Your task to perform on an android device: toggle location history Image 0: 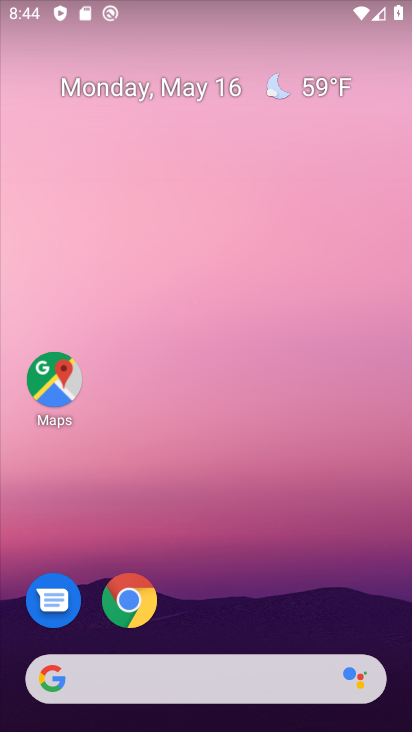
Step 0: drag from (175, 643) to (196, 183)
Your task to perform on an android device: toggle location history Image 1: 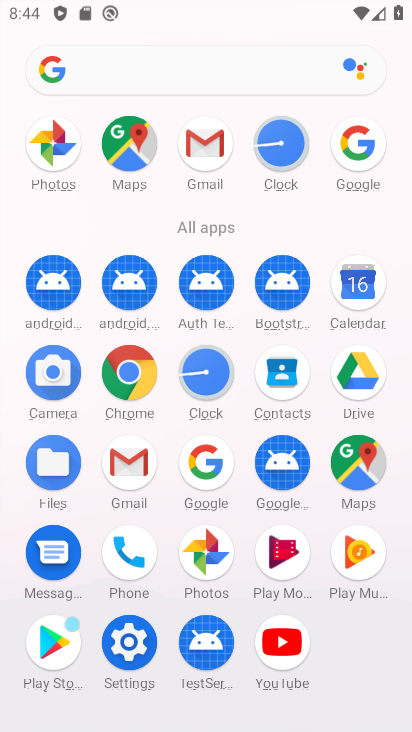
Step 1: click (142, 642)
Your task to perform on an android device: toggle location history Image 2: 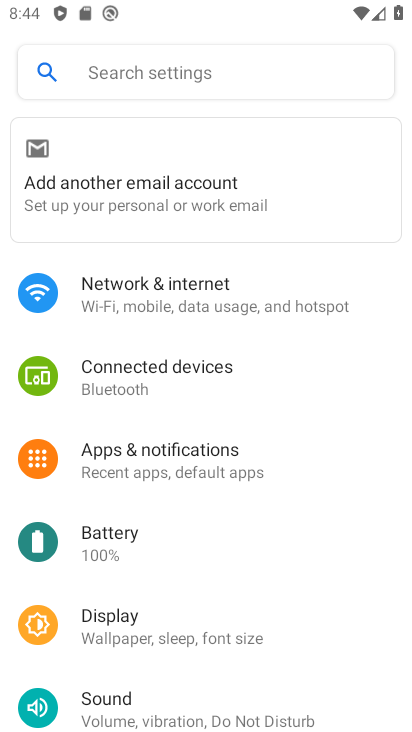
Step 2: drag from (142, 693) to (187, 276)
Your task to perform on an android device: toggle location history Image 3: 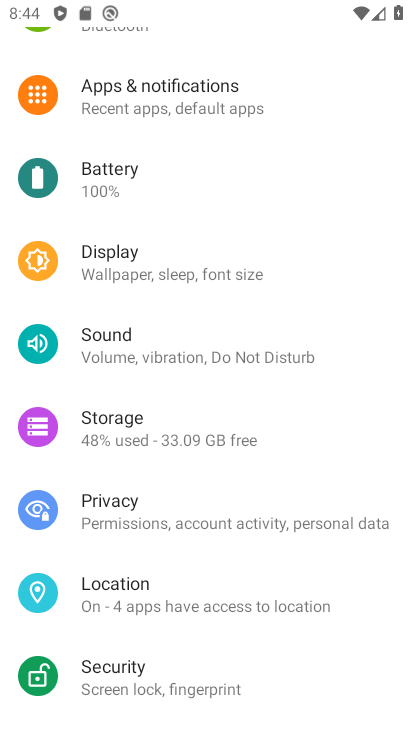
Step 3: click (124, 593)
Your task to perform on an android device: toggle location history Image 4: 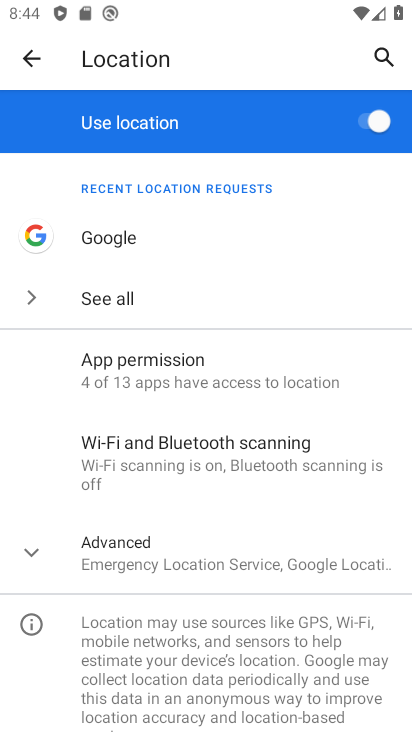
Step 4: click (107, 555)
Your task to perform on an android device: toggle location history Image 5: 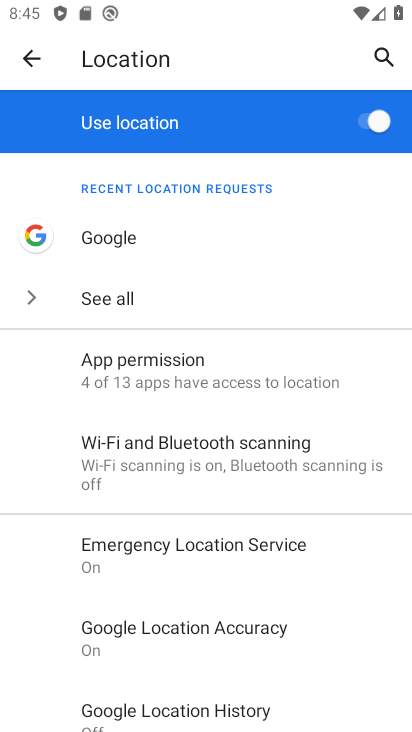
Step 5: click (200, 713)
Your task to perform on an android device: toggle location history Image 6: 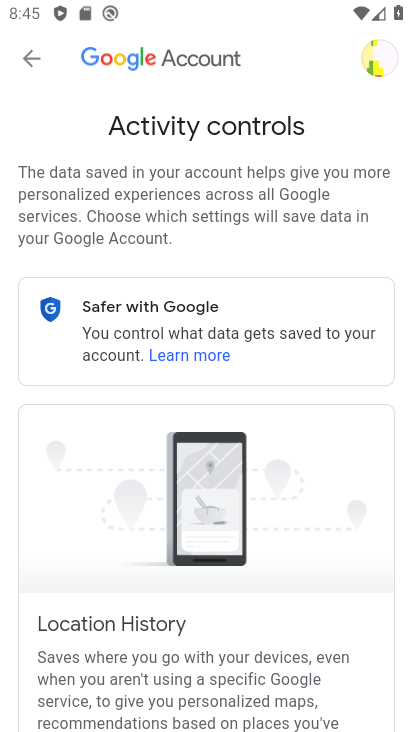
Step 6: drag from (321, 671) to (310, 276)
Your task to perform on an android device: toggle location history Image 7: 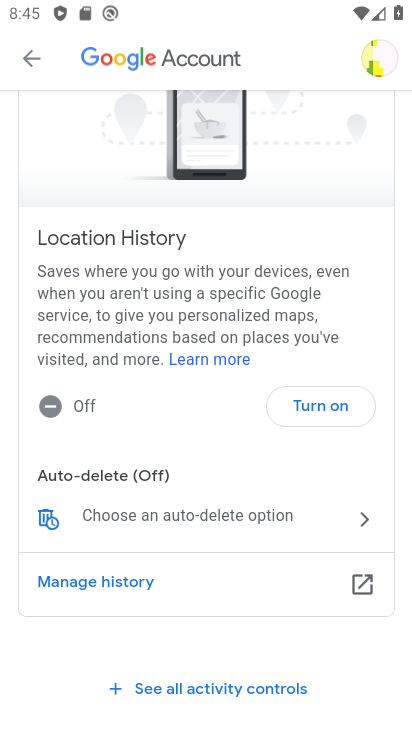
Step 7: click (316, 411)
Your task to perform on an android device: toggle location history Image 8: 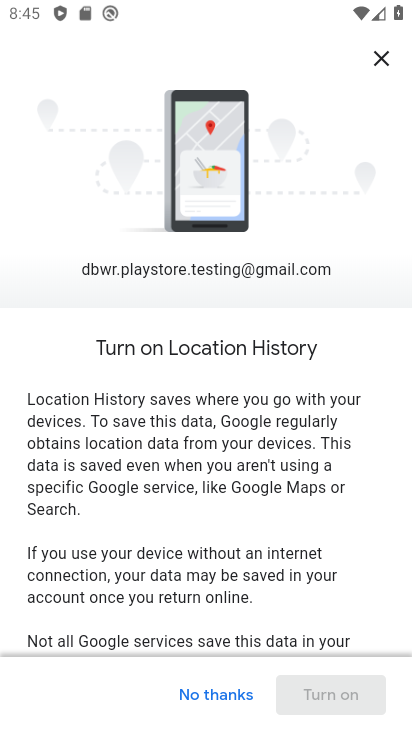
Step 8: drag from (299, 598) to (307, 178)
Your task to perform on an android device: toggle location history Image 9: 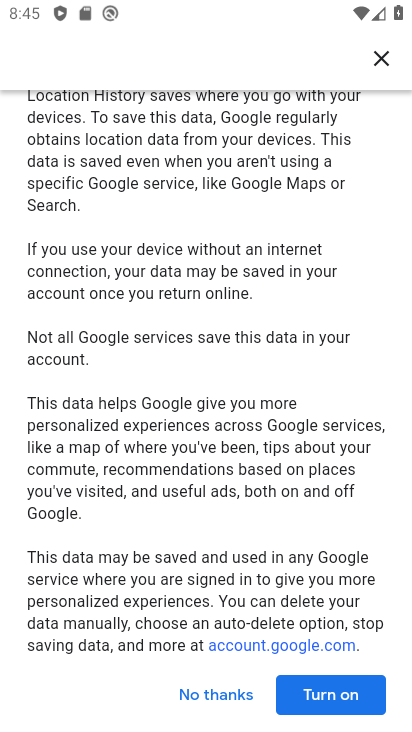
Step 9: click (333, 698)
Your task to perform on an android device: toggle location history Image 10: 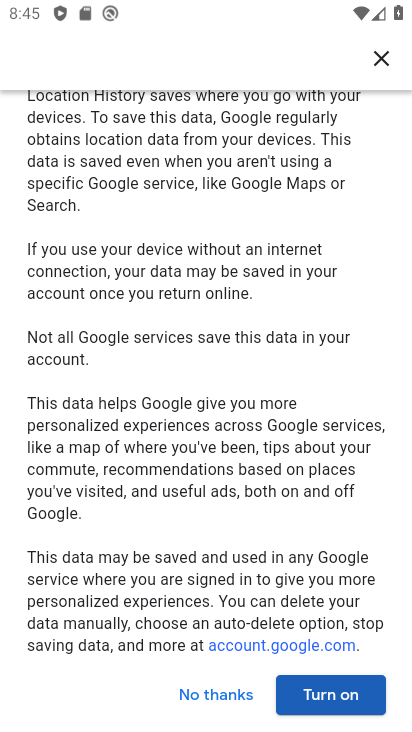
Step 10: click (312, 709)
Your task to perform on an android device: toggle location history Image 11: 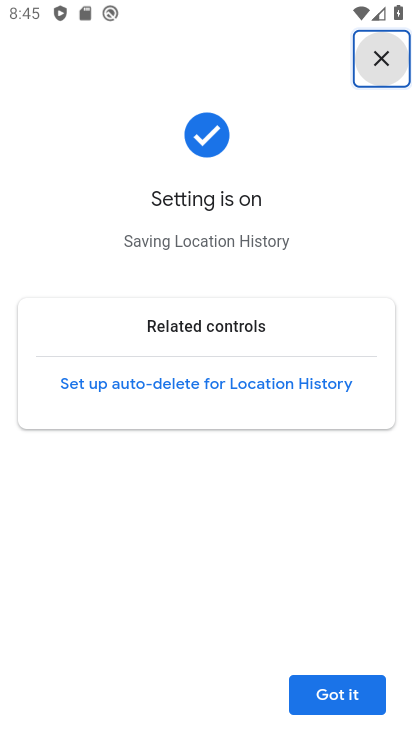
Step 11: click (358, 709)
Your task to perform on an android device: toggle location history Image 12: 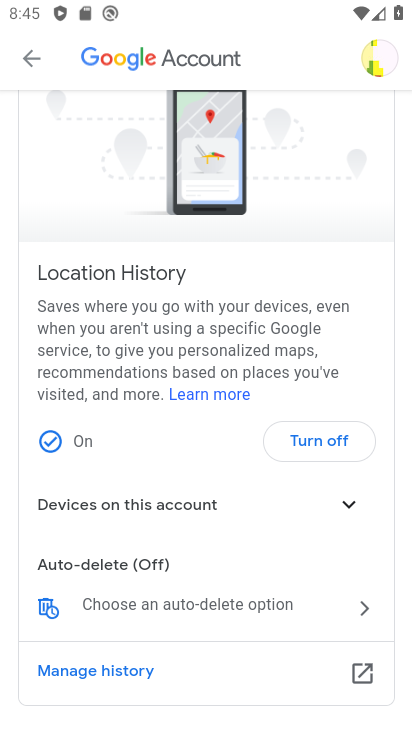
Step 12: task complete